Your task to perform on an android device: Open the web browser Image 0: 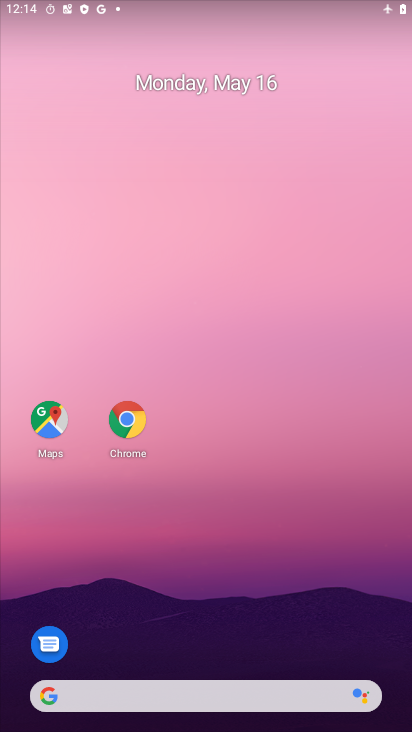
Step 0: drag from (174, 629) to (207, 260)
Your task to perform on an android device: Open the web browser Image 1: 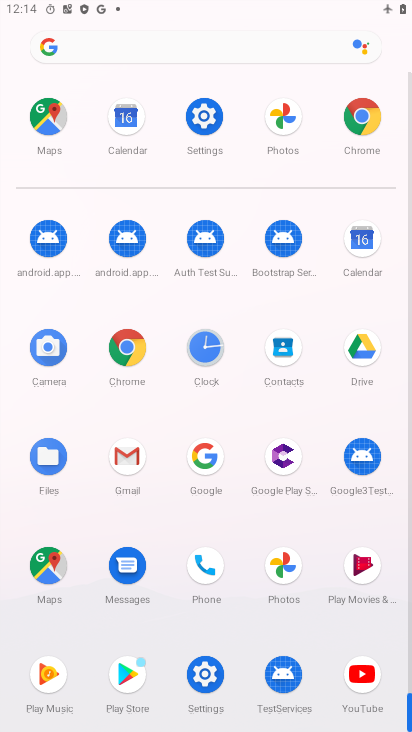
Step 1: click (361, 123)
Your task to perform on an android device: Open the web browser Image 2: 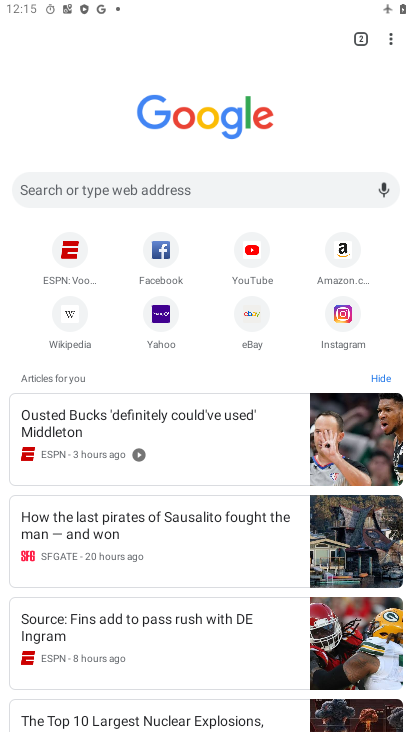
Step 2: task complete